Your task to perform on an android device: Open Reddit.com Image 0: 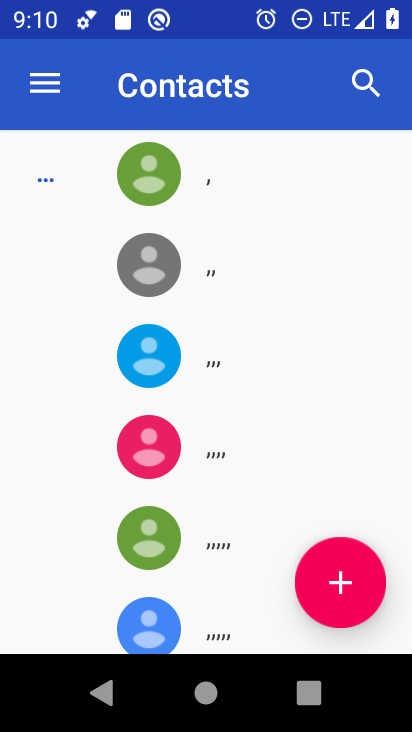
Step 0: press home button
Your task to perform on an android device: Open Reddit.com Image 1: 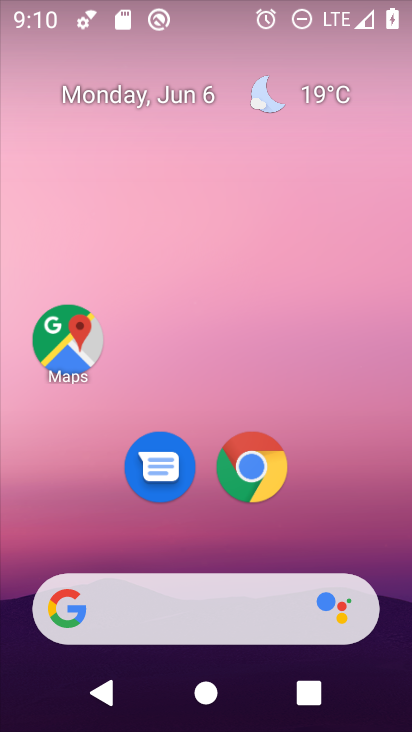
Step 1: drag from (357, 504) to (374, 154)
Your task to perform on an android device: Open Reddit.com Image 2: 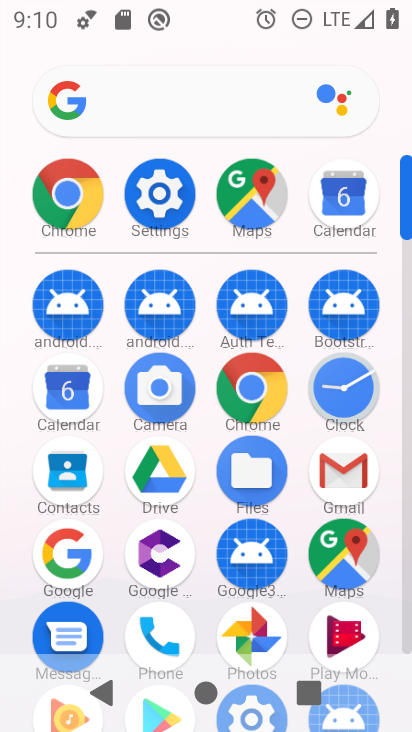
Step 2: click (270, 392)
Your task to perform on an android device: Open Reddit.com Image 3: 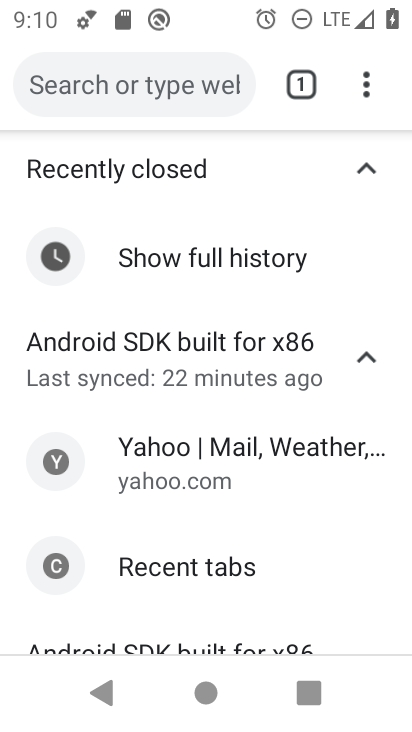
Step 3: click (199, 103)
Your task to perform on an android device: Open Reddit.com Image 4: 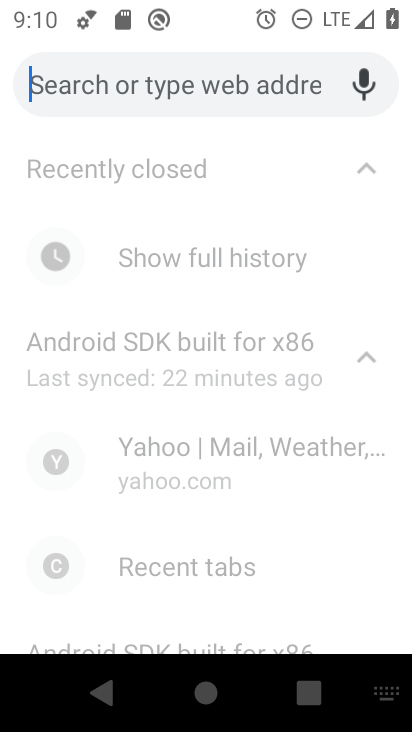
Step 4: type "reddit.com"
Your task to perform on an android device: Open Reddit.com Image 5: 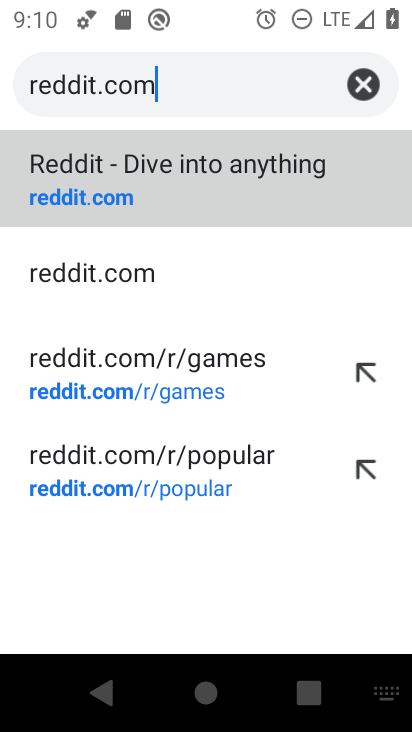
Step 5: click (125, 194)
Your task to perform on an android device: Open Reddit.com Image 6: 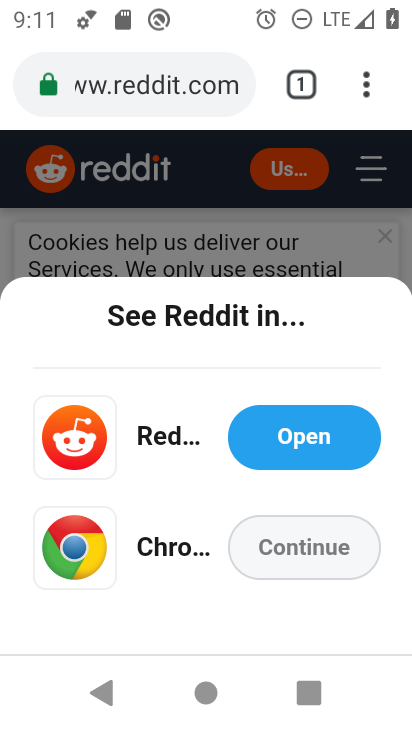
Step 6: task complete